Your task to perform on an android device: clear history in the chrome app Image 0: 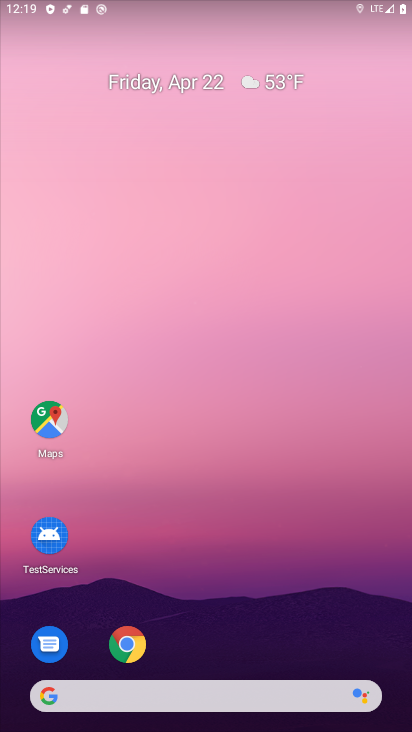
Step 0: drag from (263, 622) to (251, 215)
Your task to perform on an android device: clear history in the chrome app Image 1: 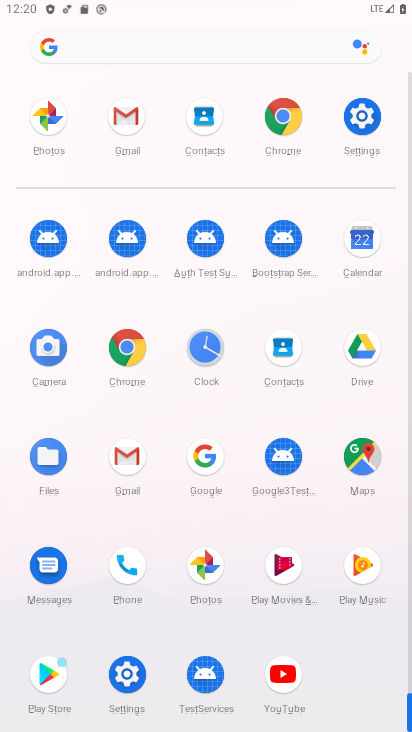
Step 1: click (123, 355)
Your task to perform on an android device: clear history in the chrome app Image 2: 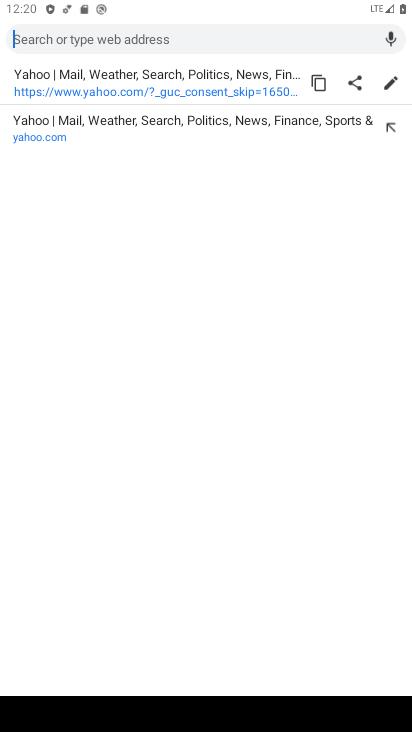
Step 2: press back button
Your task to perform on an android device: clear history in the chrome app Image 3: 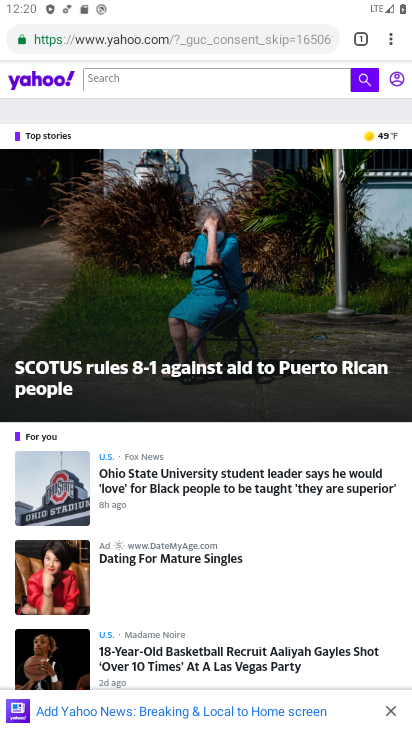
Step 3: drag from (391, 32) to (269, 274)
Your task to perform on an android device: clear history in the chrome app Image 4: 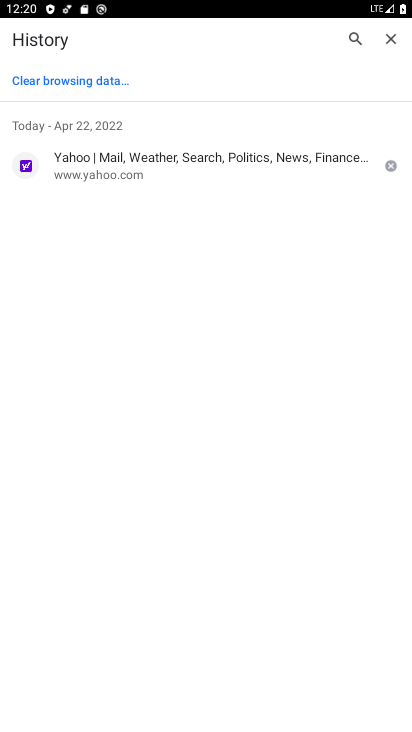
Step 4: click (47, 80)
Your task to perform on an android device: clear history in the chrome app Image 5: 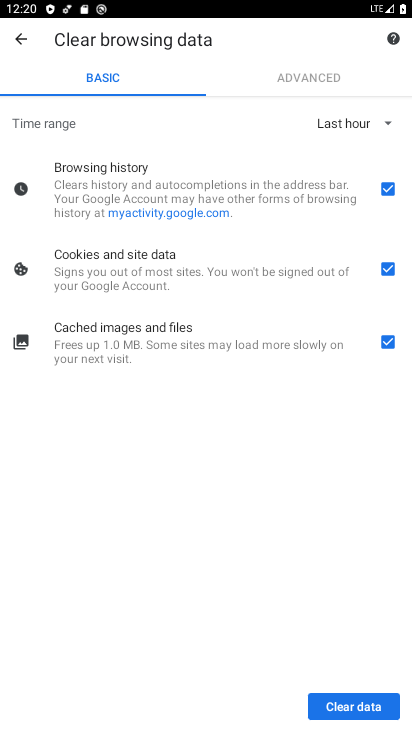
Step 5: click (357, 706)
Your task to perform on an android device: clear history in the chrome app Image 6: 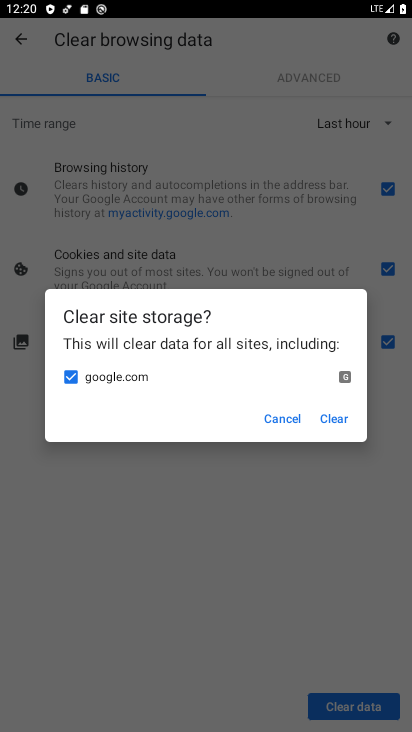
Step 6: click (323, 424)
Your task to perform on an android device: clear history in the chrome app Image 7: 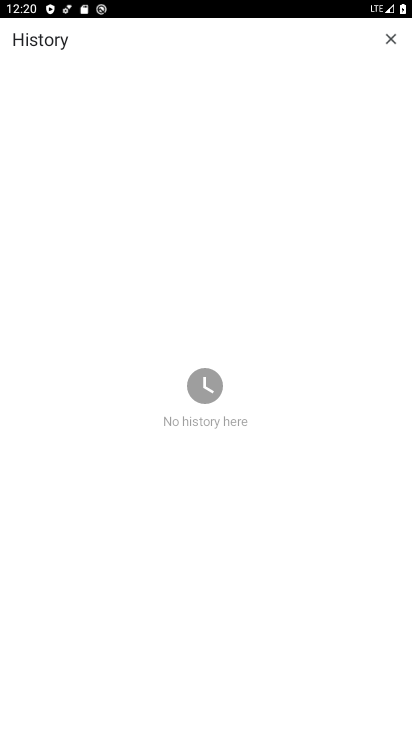
Step 7: task complete